Your task to perform on an android device: toggle wifi Image 0: 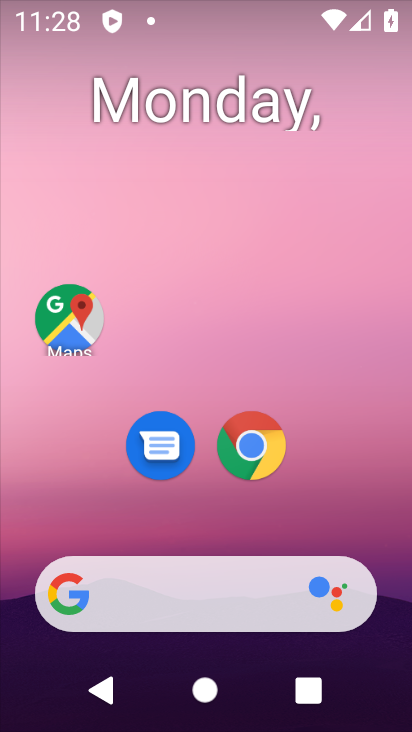
Step 0: drag from (110, 534) to (199, 97)
Your task to perform on an android device: toggle wifi Image 1: 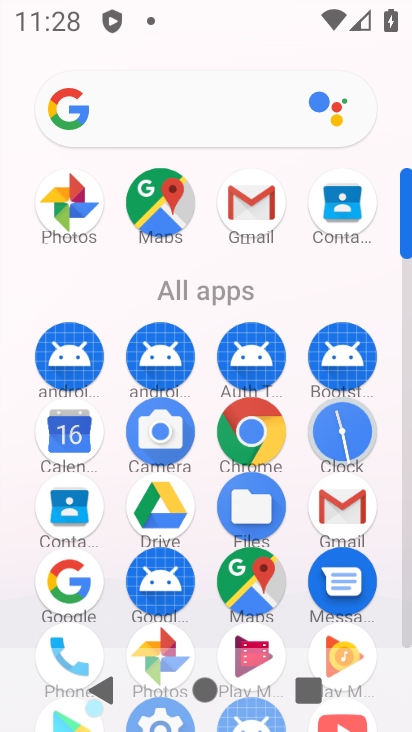
Step 1: drag from (202, 546) to (277, 295)
Your task to perform on an android device: toggle wifi Image 2: 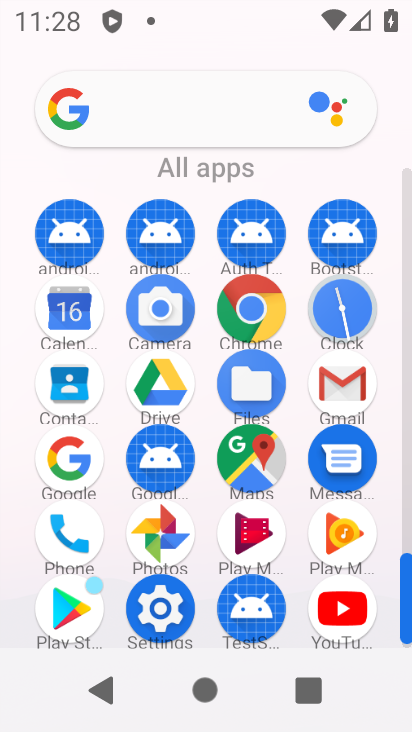
Step 2: click (162, 604)
Your task to perform on an android device: toggle wifi Image 3: 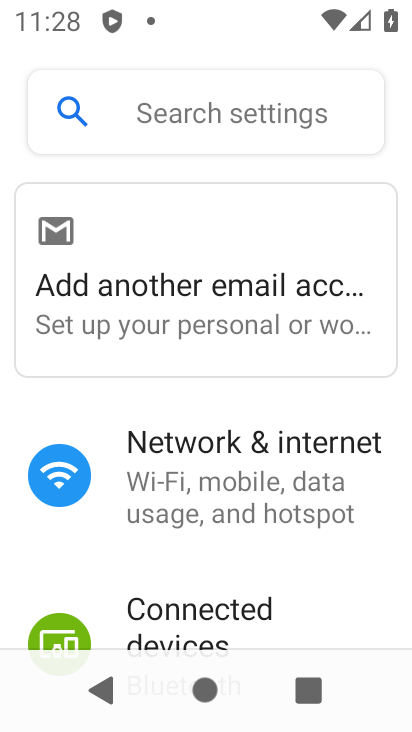
Step 3: click (255, 473)
Your task to perform on an android device: toggle wifi Image 4: 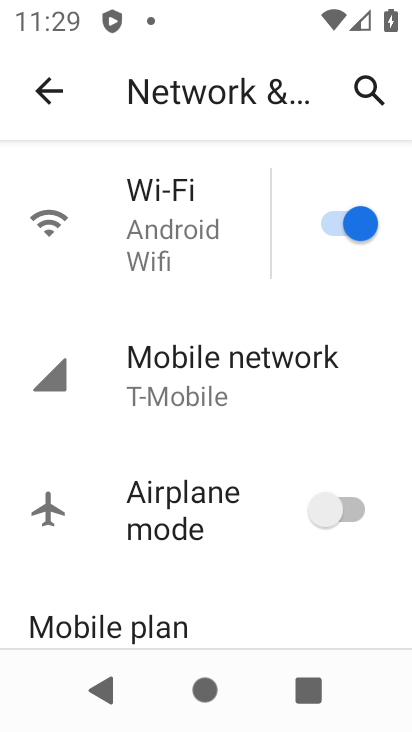
Step 4: click (325, 231)
Your task to perform on an android device: toggle wifi Image 5: 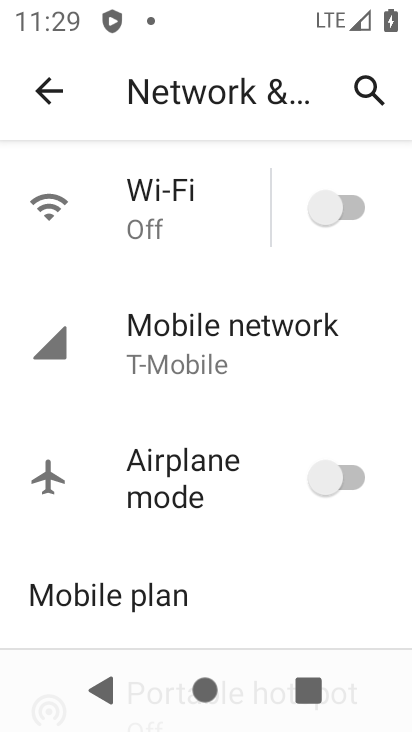
Step 5: task complete